Your task to perform on an android device: Open accessibility settings Image 0: 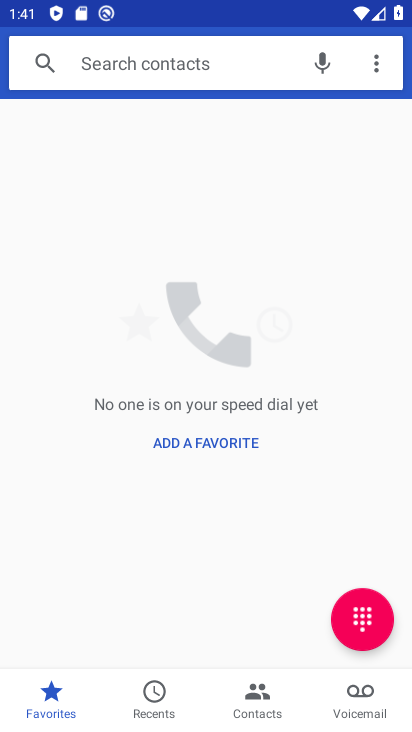
Step 0: press back button
Your task to perform on an android device: Open accessibility settings Image 1: 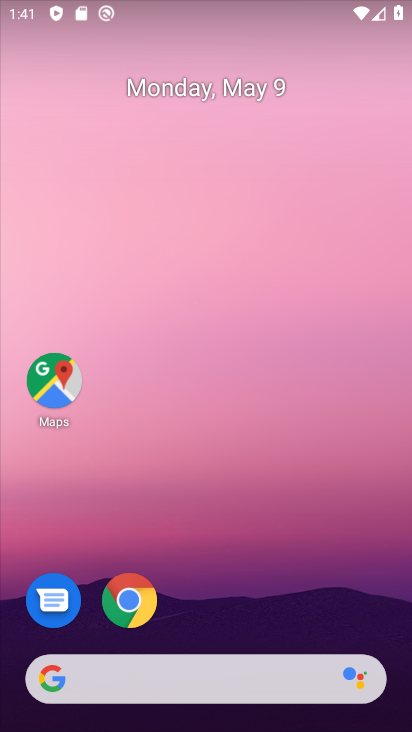
Step 1: drag from (240, 571) to (240, 8)
Your task to perform on an android device: Open accessibility settings Image 2: 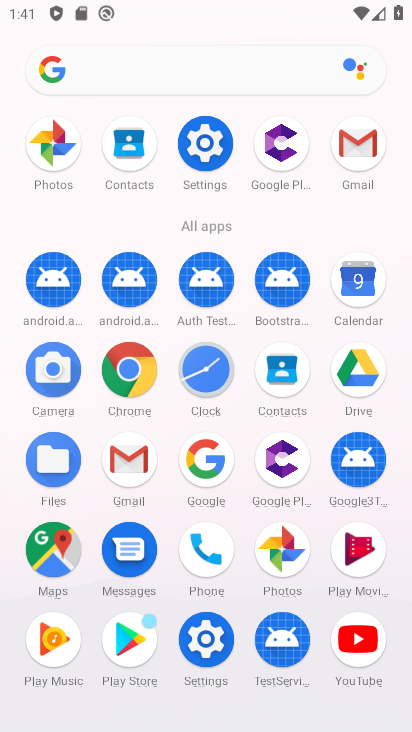
Step 2: click (202, 629)
Your task to perform on an android device: Open accessibility settings Image 3: 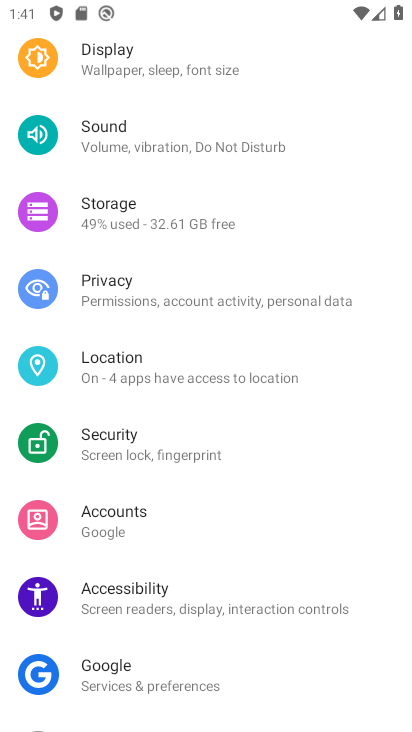
Step 3: click (181, 599)
Your task to perform on an android device: Open accessibility settings Image 4: 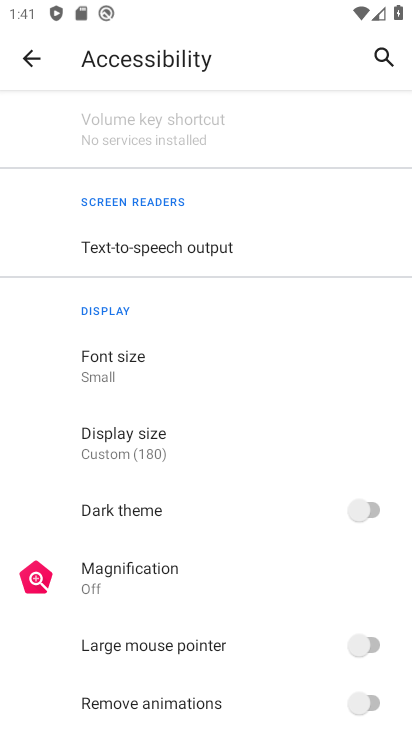
Step 4: task complete